Your task to perform on an android device: Open notification settings Image 0: 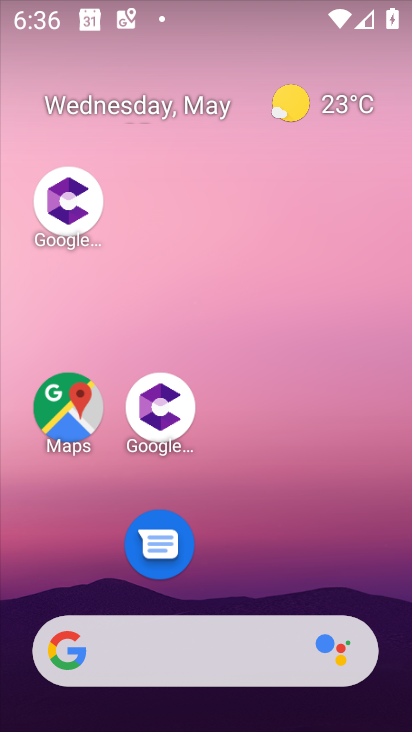
Step 0: drag from (296, 512) to (193, 32)
Your task to perform on an android device: Open notification settings Image 1: 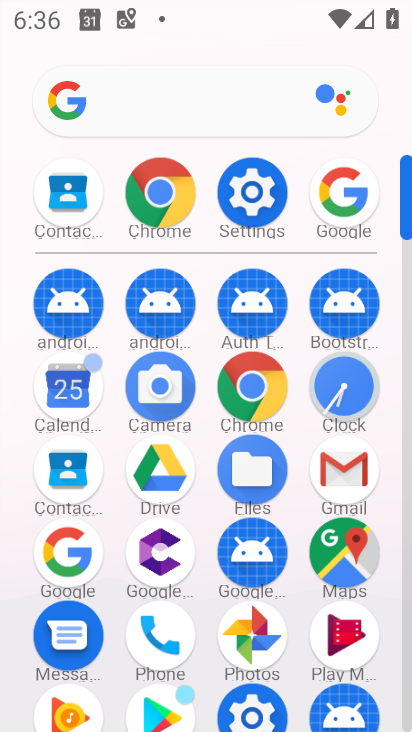
Step 1: click (248, 185)
Your task to perform on an android device: Open notification settings Image 2: 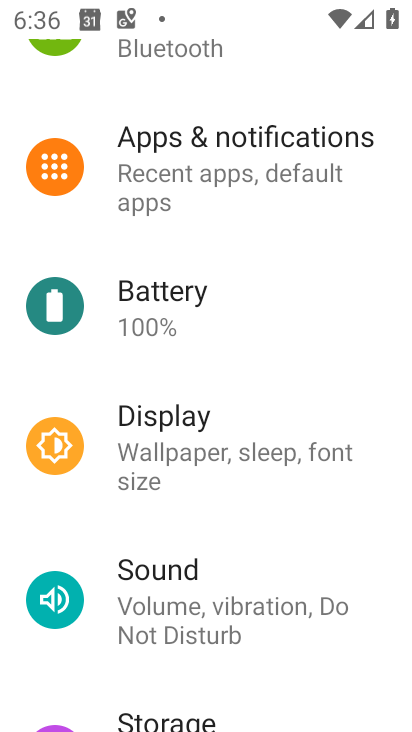
Step 2: click (239, 136)
Your task to perform on an android device: Open notification settings Image 3: 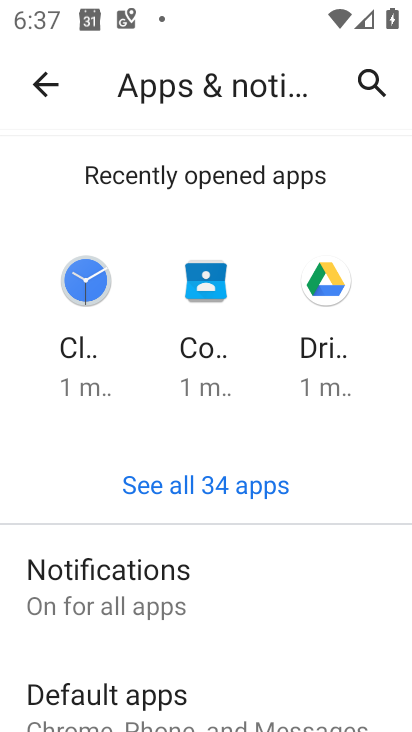
Step 3: task complete